Your task to perform on an android device: Open notification settings Image 0: 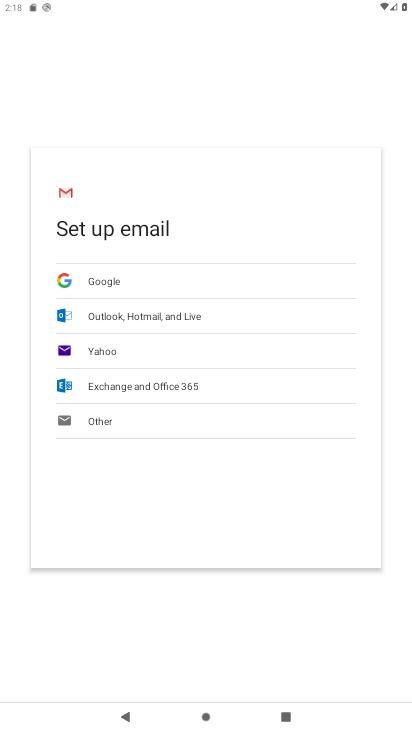
Step 0: press home button
Your task to perform on an android device: Open notification settings Image 1: 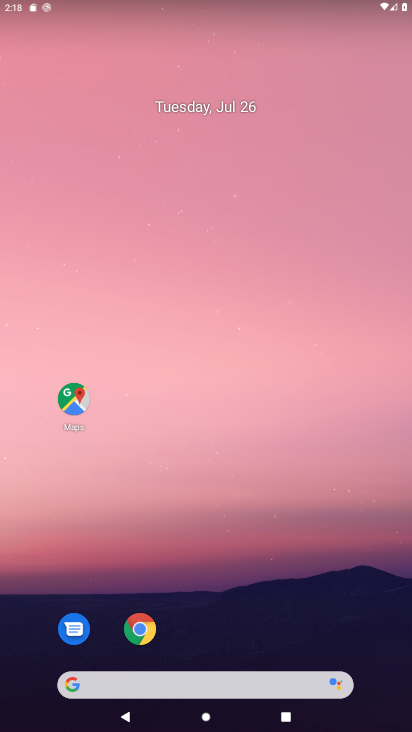
Step 1: drag from (203, 655) to (57, 40)
Your task to perform on an android device: Open notification settings Image 2: 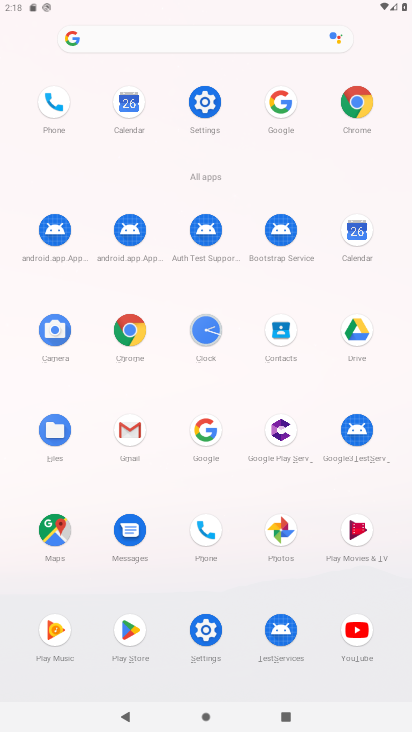
Step 2: click (207, 622)
Your task to perform on an android device: Open notification settings Image 3: 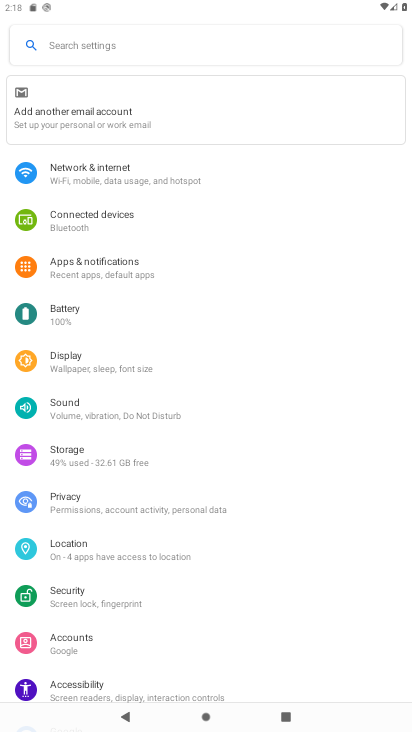
Step 3: click (102, 261)
Your task to perform on an android device: Open notification settings Image 4: 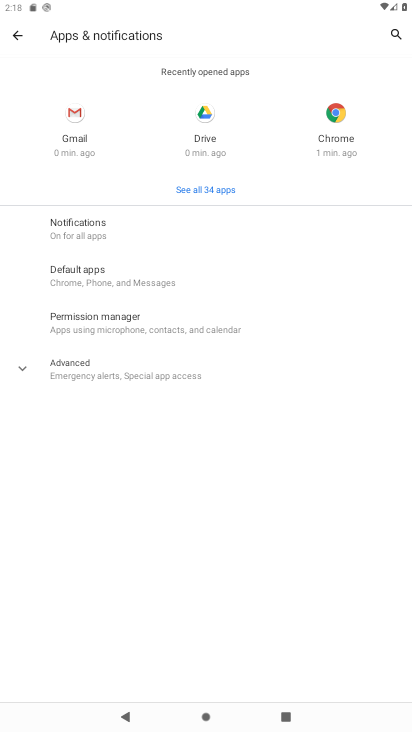
Step 4: click (99, 216)
Your task to perform on an android device: Open notification settings Image 5: 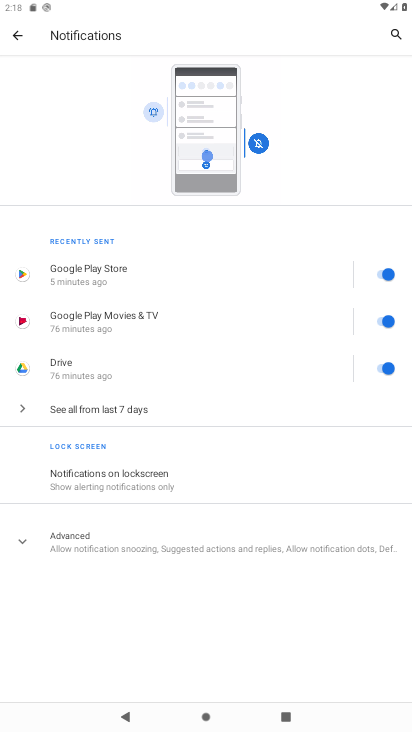
Step 5: task complete